Your task to perform on an android device: turn off javascript in the chrome app Image 0: 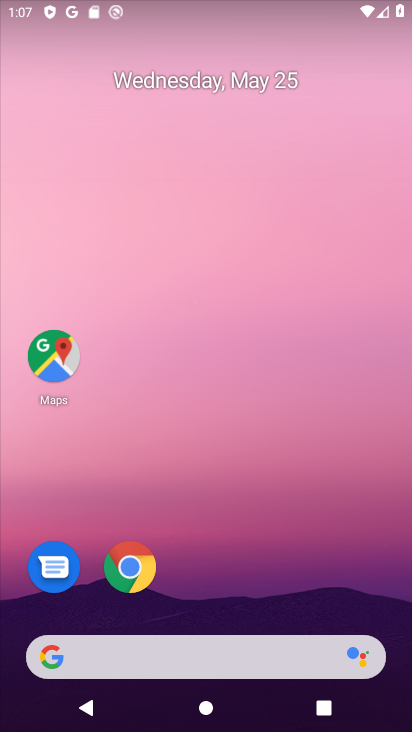
Step 0: click (127, 568)
Your task to perform on an android device: turn off javascript in the chrome app Image 1: 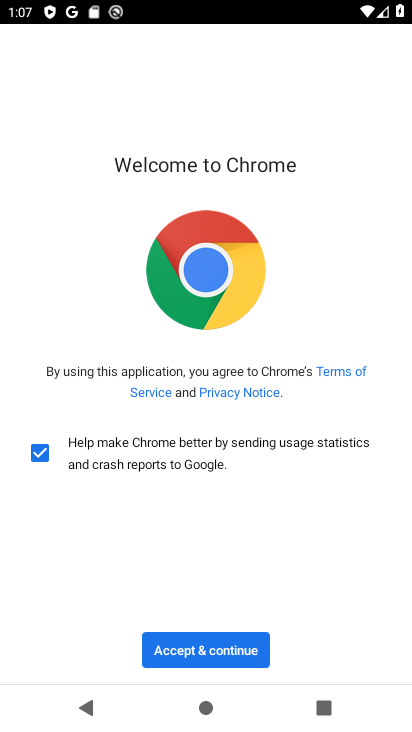
Step 1: click (226, 652)
Your task to perform on an android device: turn off javascript in the chrome app Image 2: 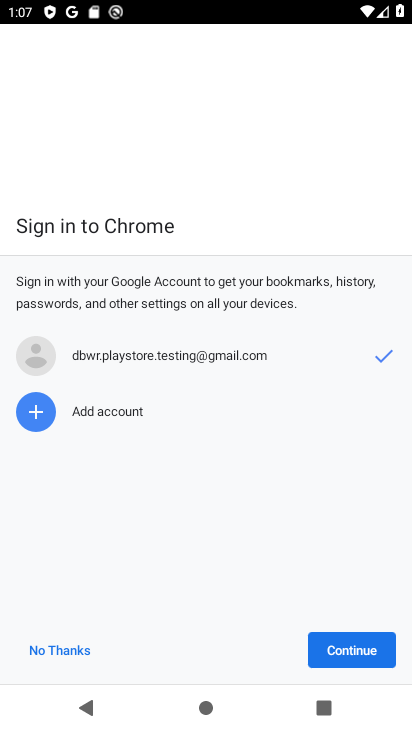
Step 2: click (355, 651)
Your task to perform on an android device: turn off javascript in the chrome app Image 3: 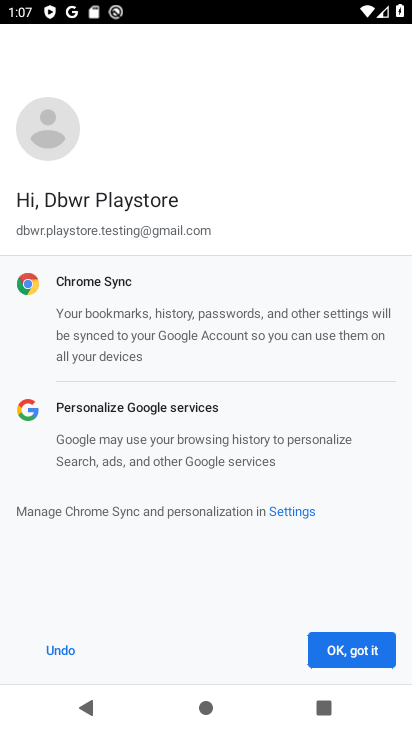
Step 3: click (355, 651)
Your task to perform on an android device: turn off javascript in the chrome app Image 4: 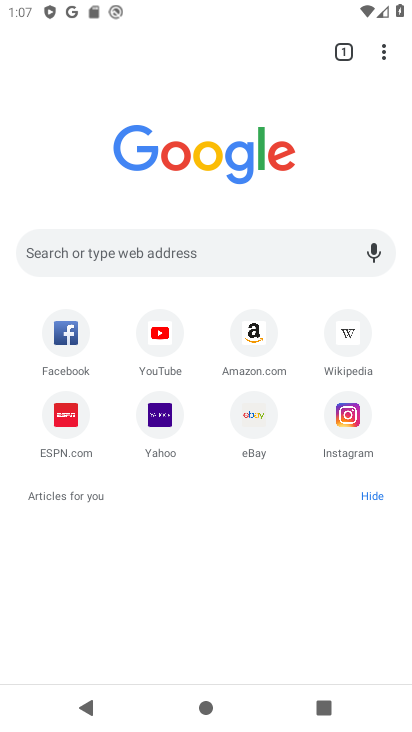
Step 4: click (380, 55)
Your task to perform on an android device: turn off javascript in the chrome app Image 5: 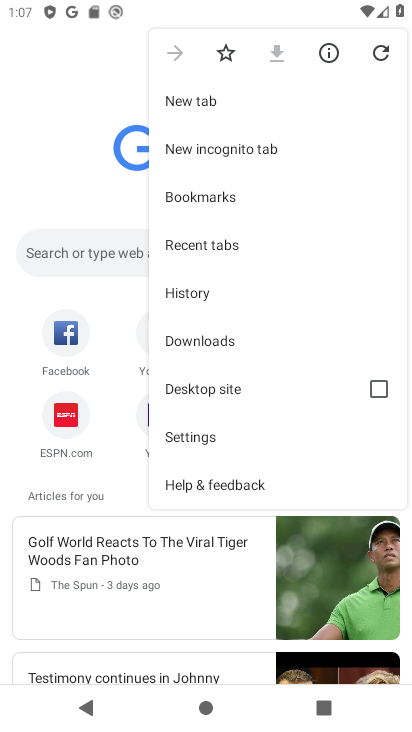
Step 5: click (207, 434)
Your task to perform on an android device: turn off javascript in the chrome app Image 6: 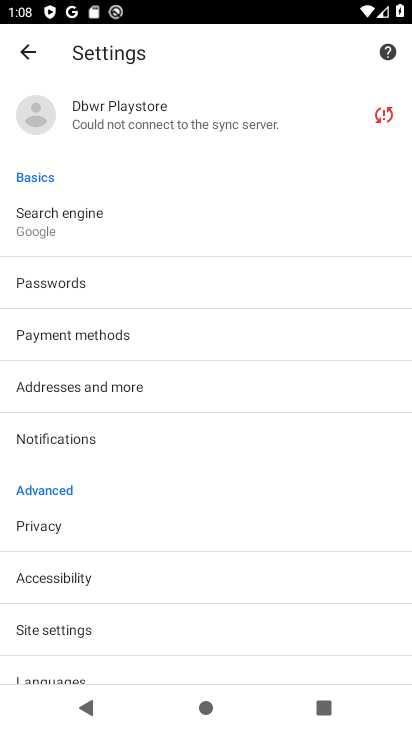
Step 6: click (88, 624)
Your task to perform on an android device: turn off javascript in the chrome app Image 7: 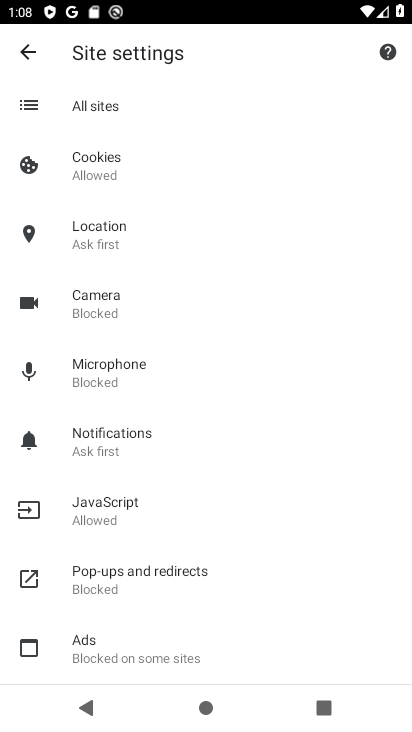
Step 7: click (166, 510)
Your task to perform on an android device: turn off javascript in the chrome app Image 8: 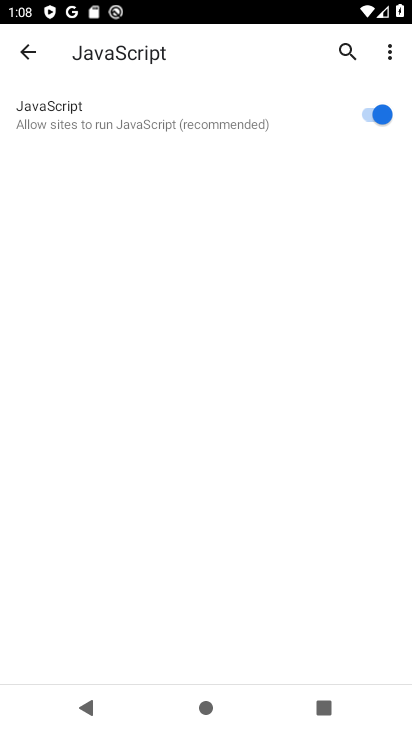
Step 8: click (366, 113)
Your task to perform on an android device: turn off javascript in the chrome app Image 9: 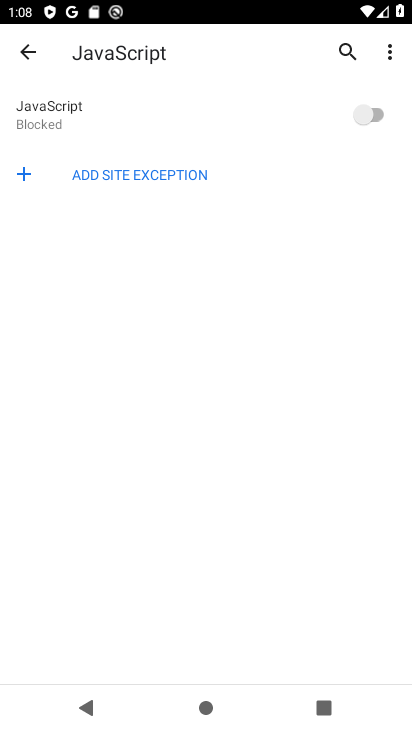
Step 9: task complete